Your task to perform on an android device: turn on priority inbox in the gmail app Image 0: 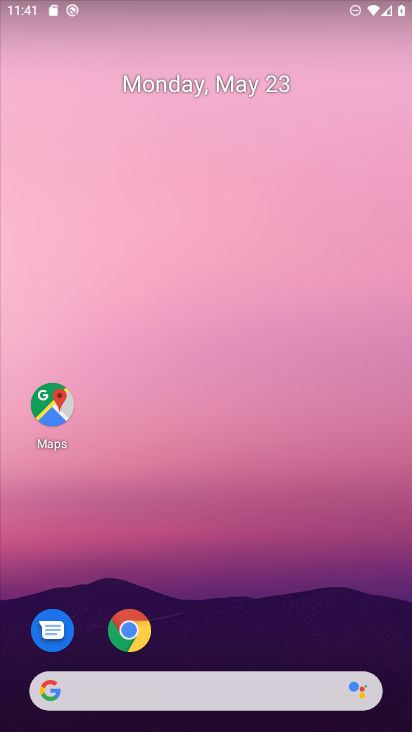
Step 0: drag from (195, 646) to (211, 216)
Your task to perform on an android device: turn on priority inbox in the gmail app Image 1: 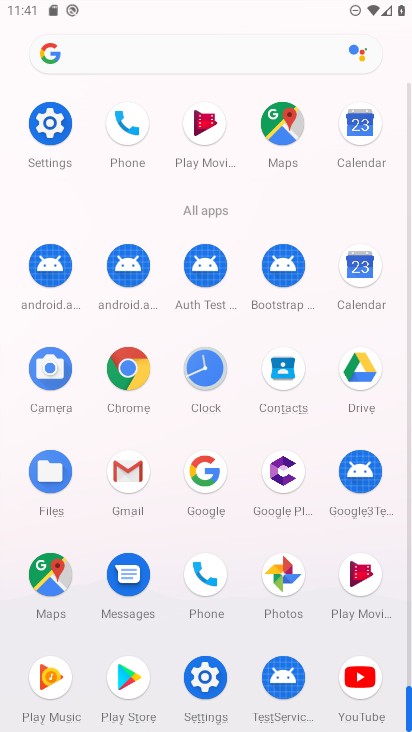
Step 1: click (139, 485)
Your task to perform on an android device: turn on priority inbox in the gmail app Image 2: 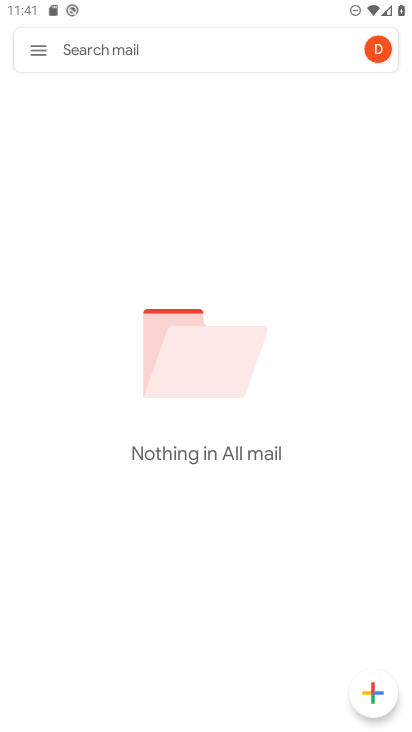
Step 2: click (33, 44)
Your task to perform on an android device: turn on priority inbox in the gmail app Image 3: 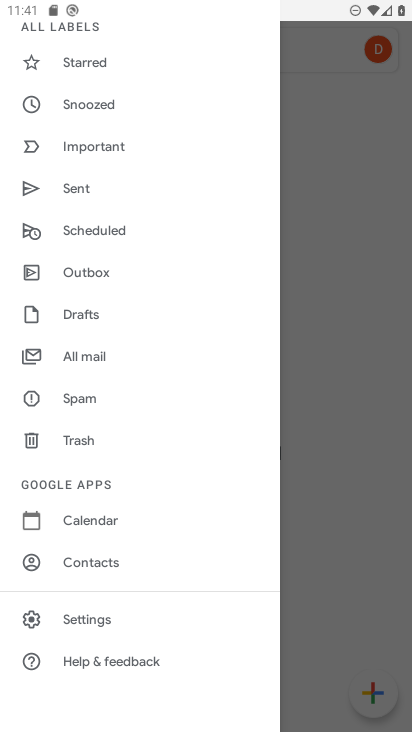
Step 3: click (127, 615)
Your task to perform on an android device: turn on priority inbox in the gmail app Image 4: 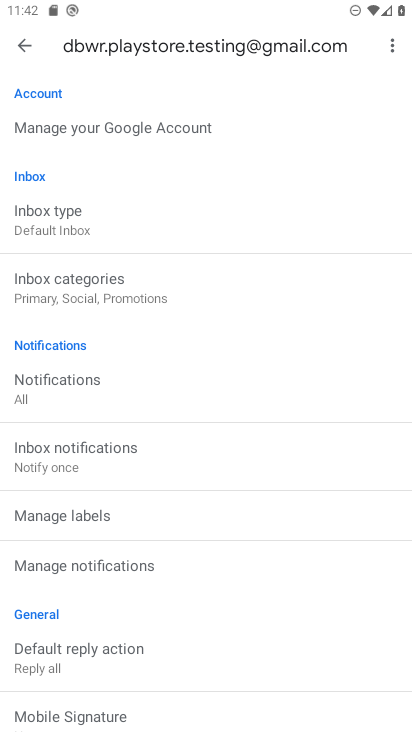
Step 4: click (93, 231)
Your task to perform on an android device: turn on priority inbox in the gmail app Image 5: 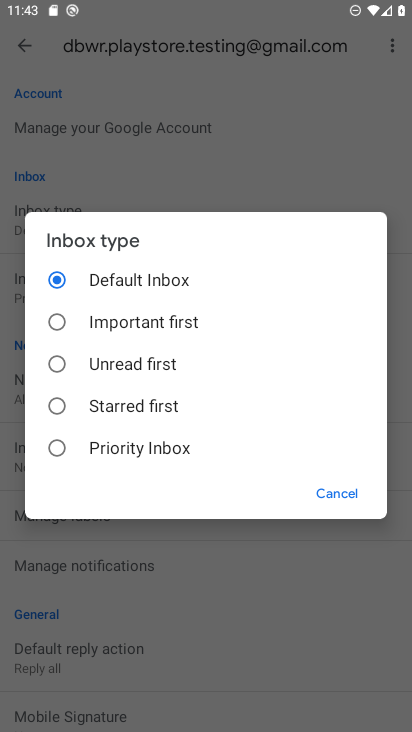
Step 5: click (163, 452)
Your task to perform on an android device: turn on priority inbox in the gmail app Image 6: 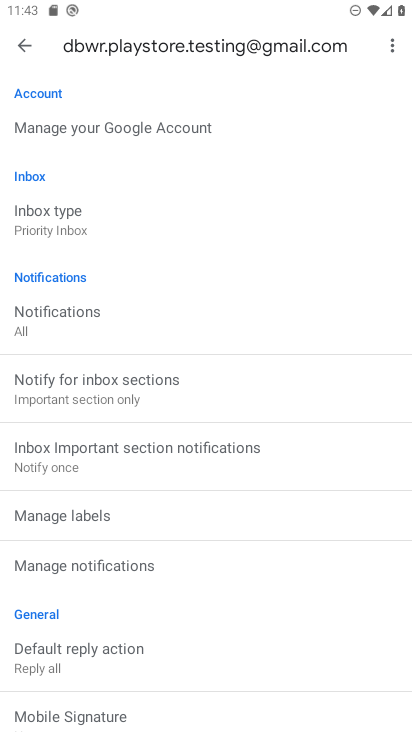
Step 6: task complete